Your task to perform on an android device: Go to notification settings Image 0: 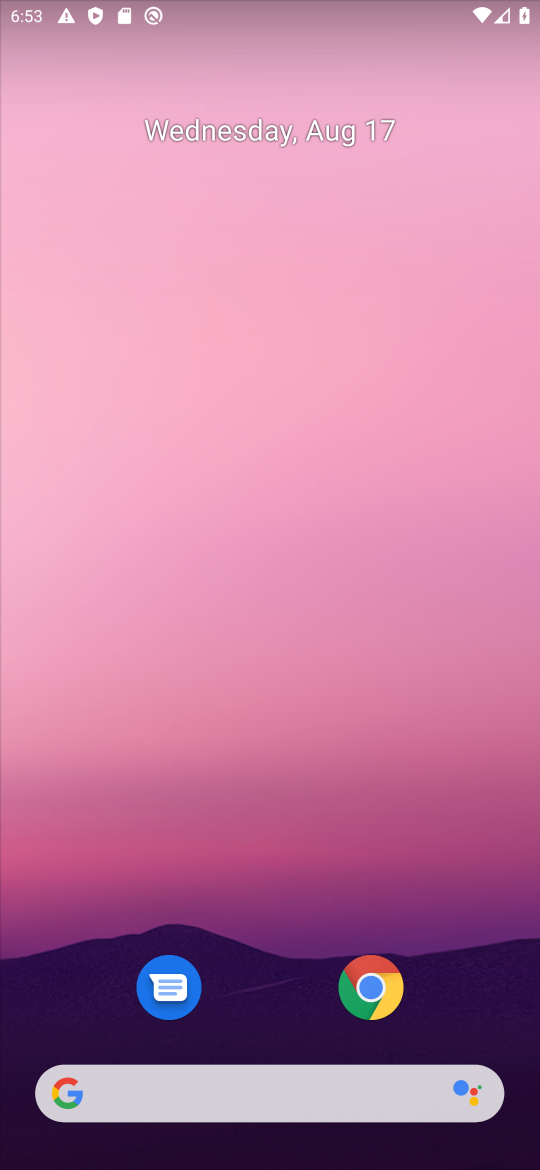
Step 0: drag from (512, 1020) to (147, 25)
Your task to perform on an android device: Go to notification settings Image 1: 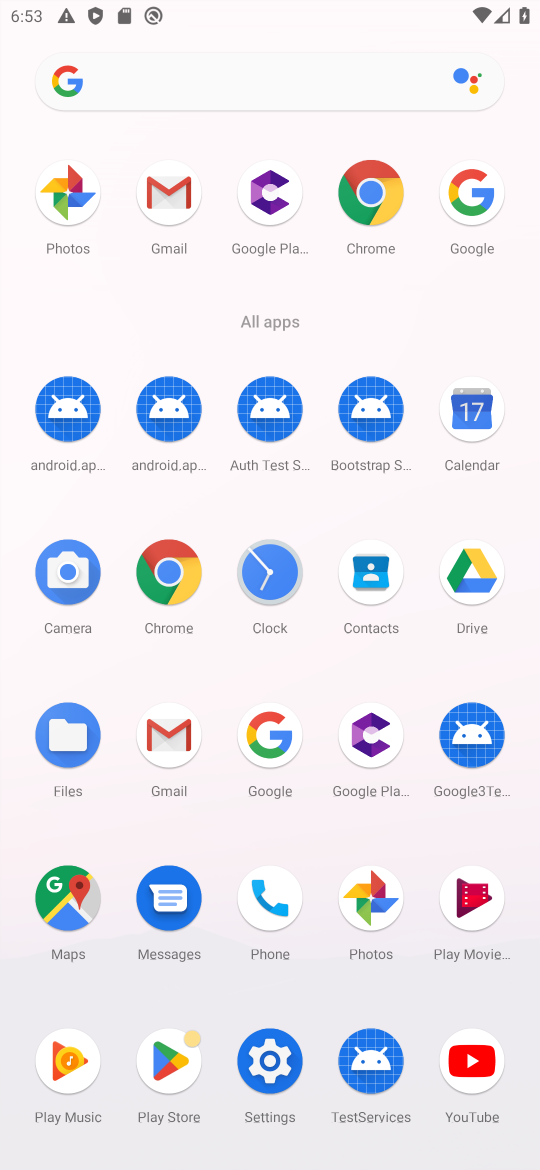
Step 1: click (285, 1059)
Your task to perform on an android device: Go to notification settings Image 2: 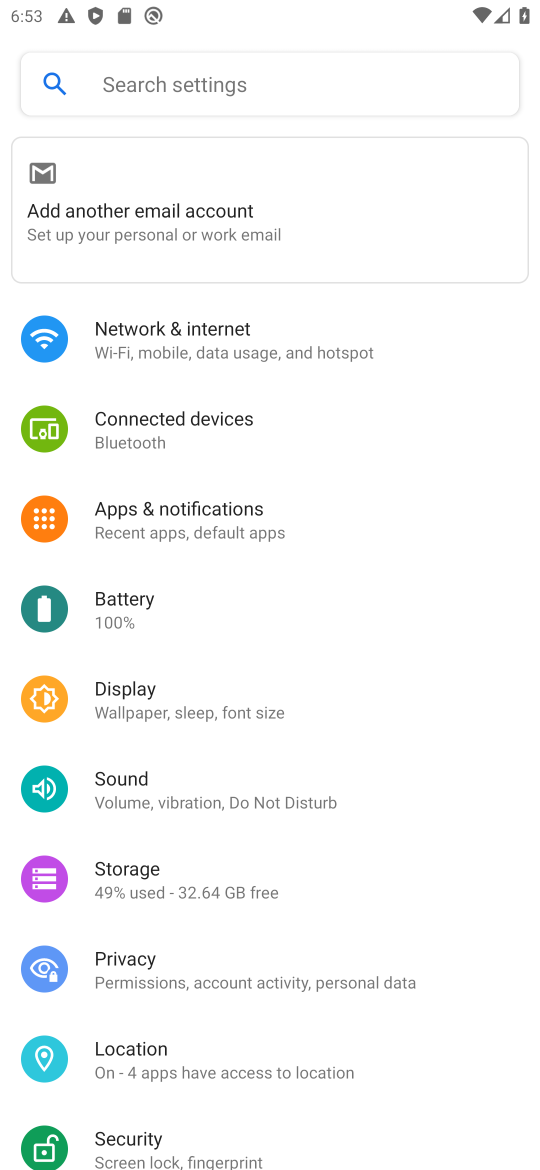
Step 2: click (195, 529)
Your task to perform on an android device: Go to notification settings Image 3: 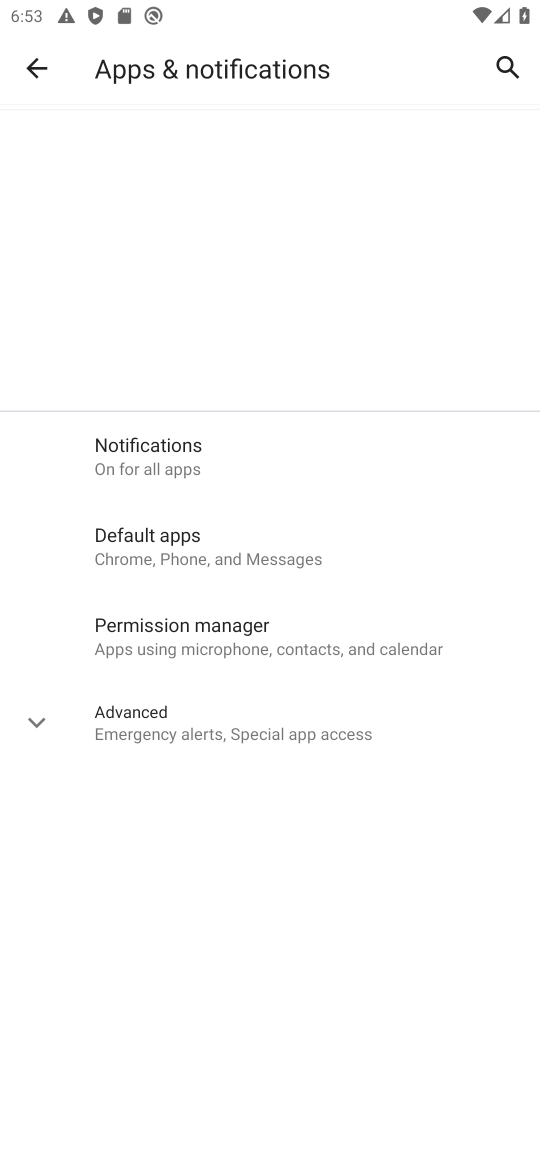
Step 3: click (194, 464)
Your task to perform on an android device: Go to notification settings Image 4: 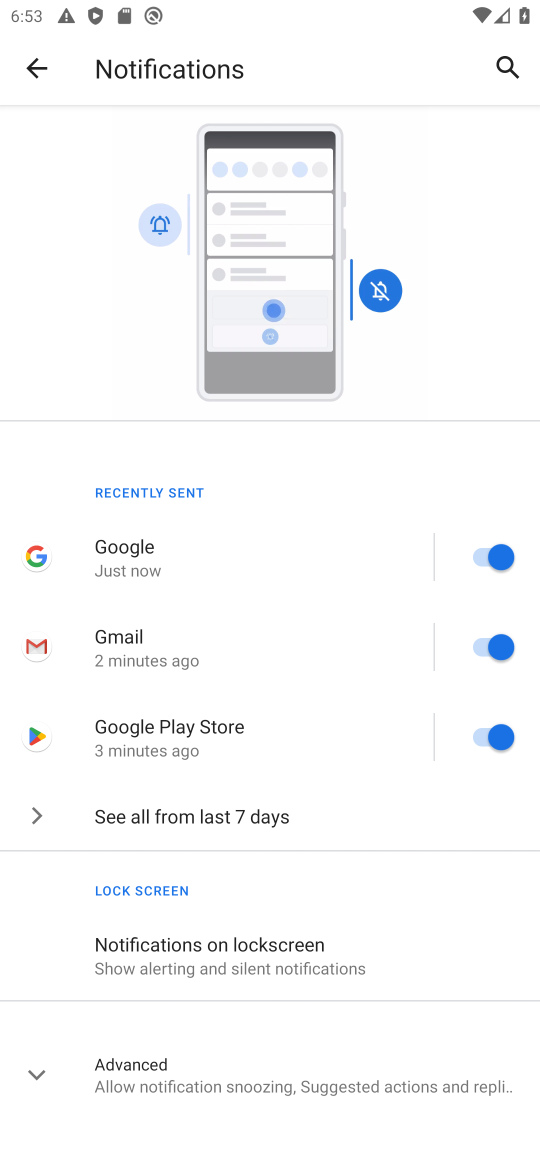
Step 4: click (152, 1050)
Your task to perform on an android device: Go to notification settings Image 5: 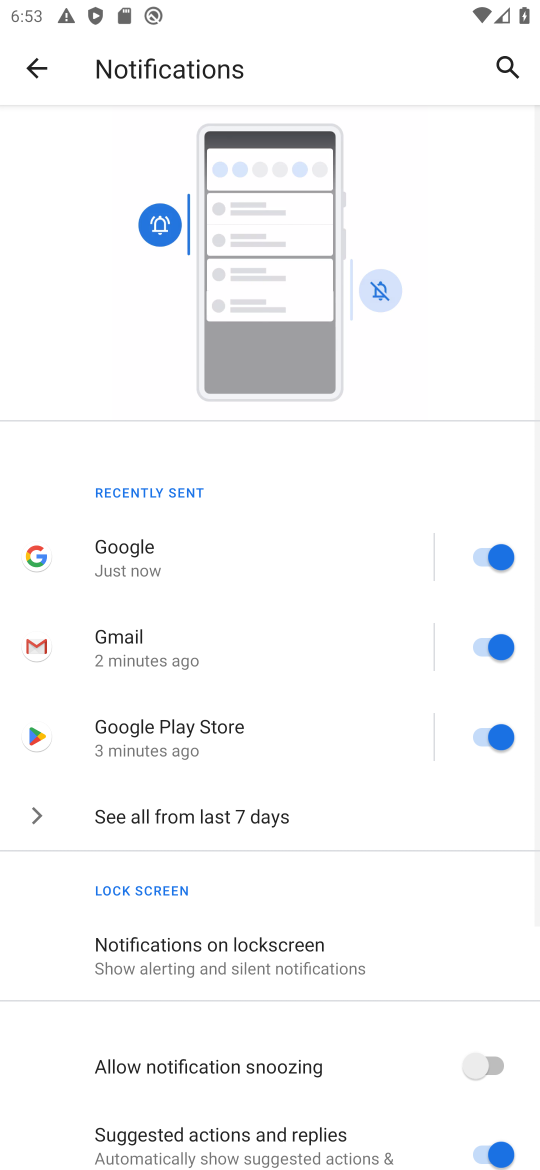
Step 5: task complete